Your task to perform on an android device: Check the news Image 0: 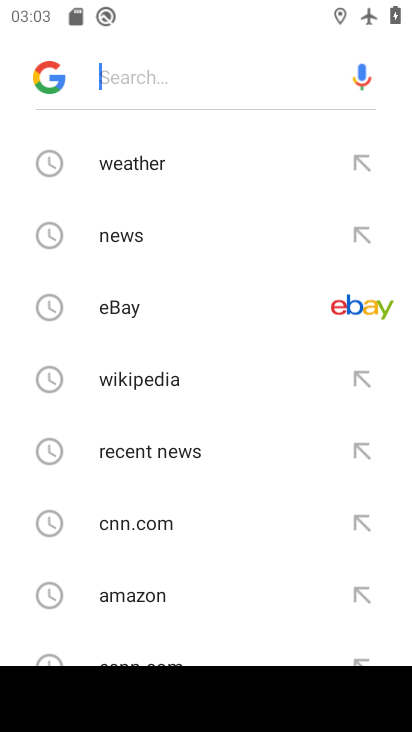
Step 0: click (160, 231)
Your task to perform on an android device: Check the news Image 1: 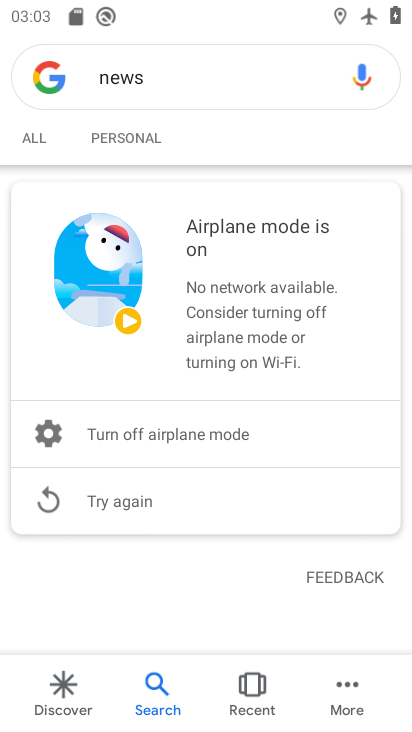
Step 1: task complete